Your task to perform on an android device: Clear all items from cart on ebay.com. Image 0: 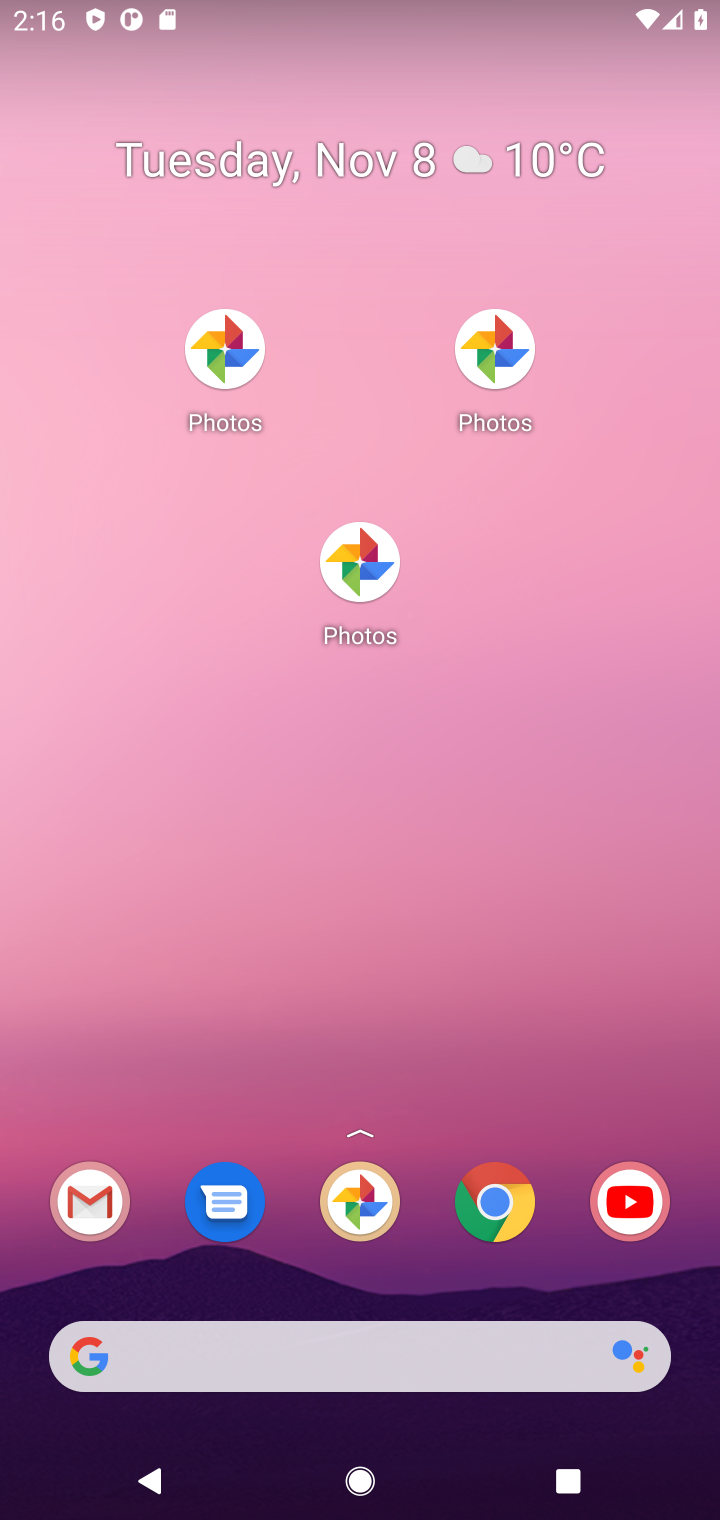
Step 0: drag from (339, 1330) to (360, 504)
Your task to perform on an android device: Clear all items from cart on ebay.com. Image 1: 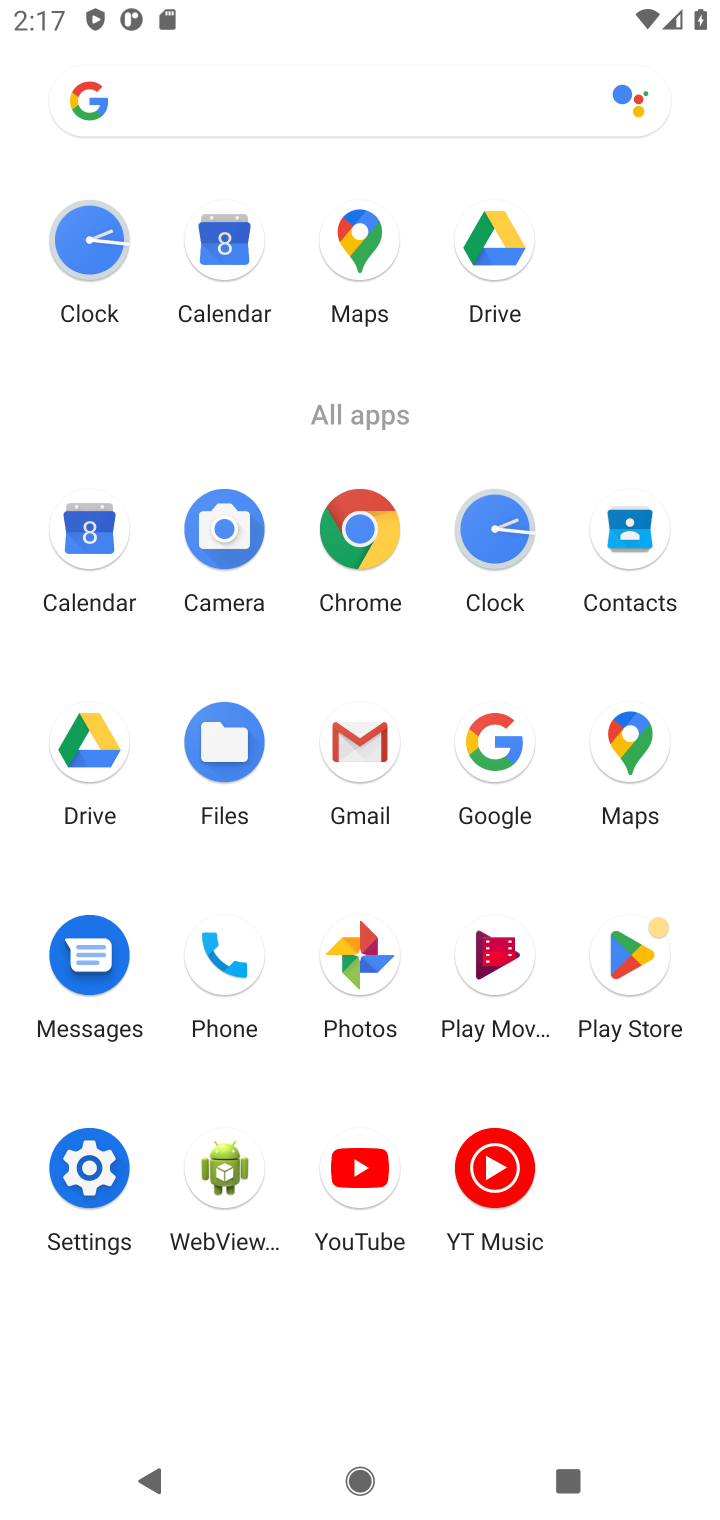
Step 1: click (513, 801)
Your task to perform on an android device: Clear all items from cart on ebay.com. Image 2: 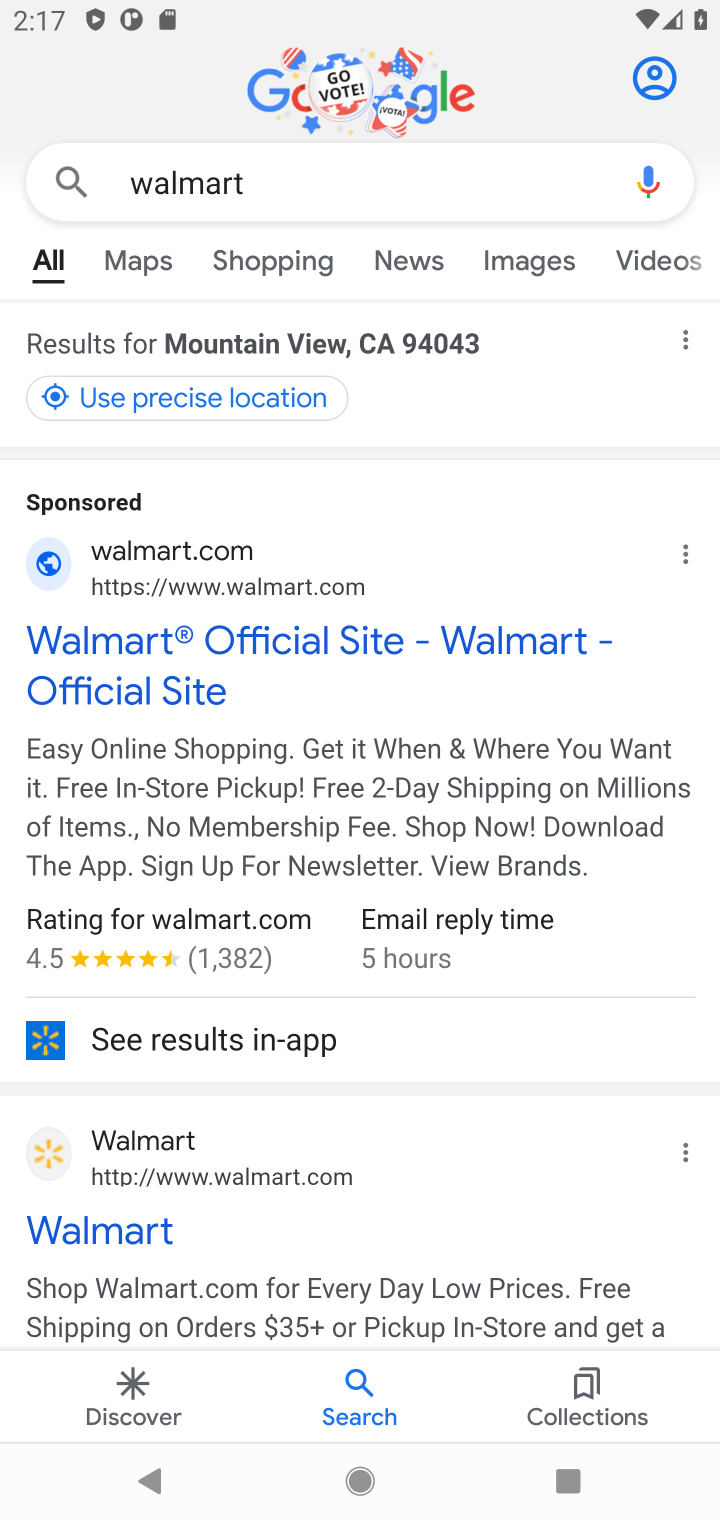
Step 2: click (442, 171)
Your task to perform on an android device: Clear all items from cart on ebay.com. Image 3: 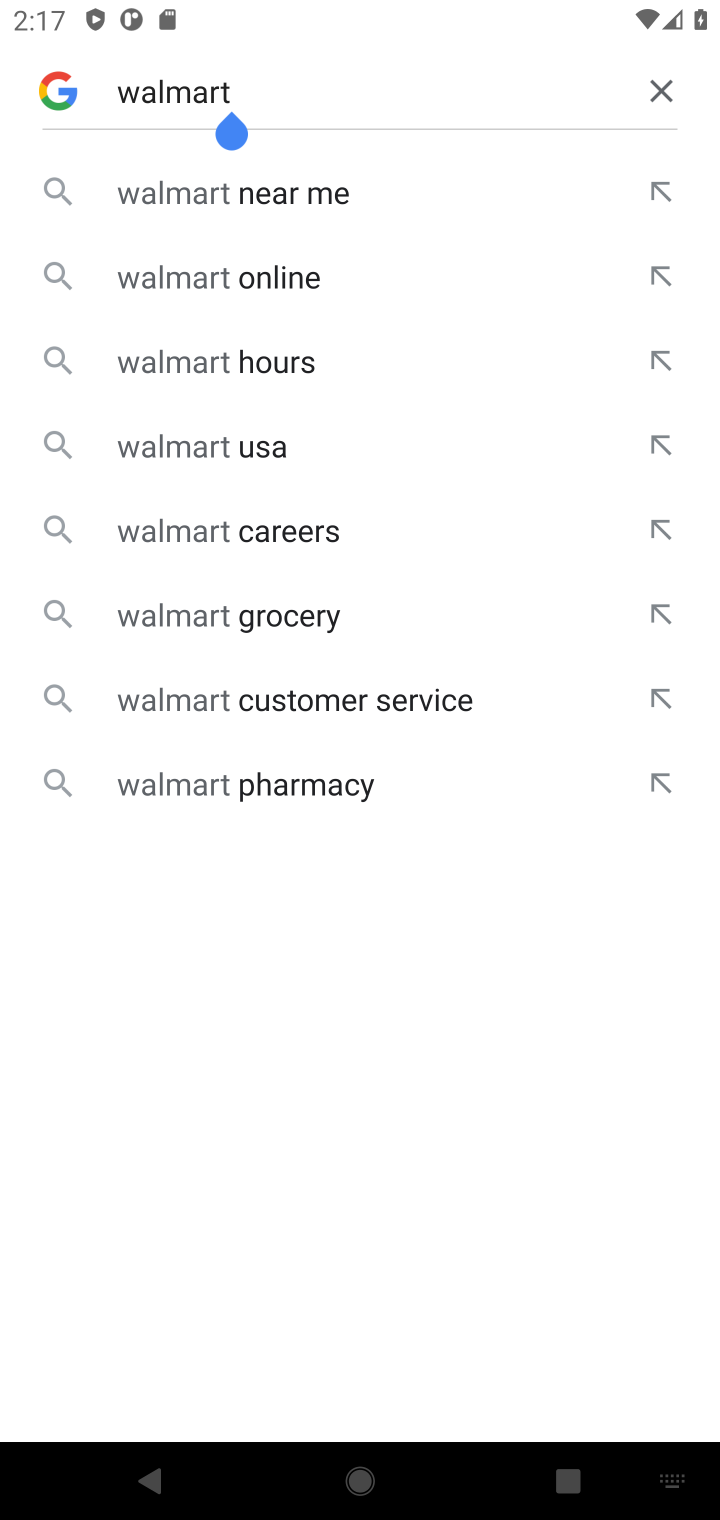
Step 3: click (662, 97)
Your task to perform on an android device: Clear all items from cart on ebay.com. Image 4: 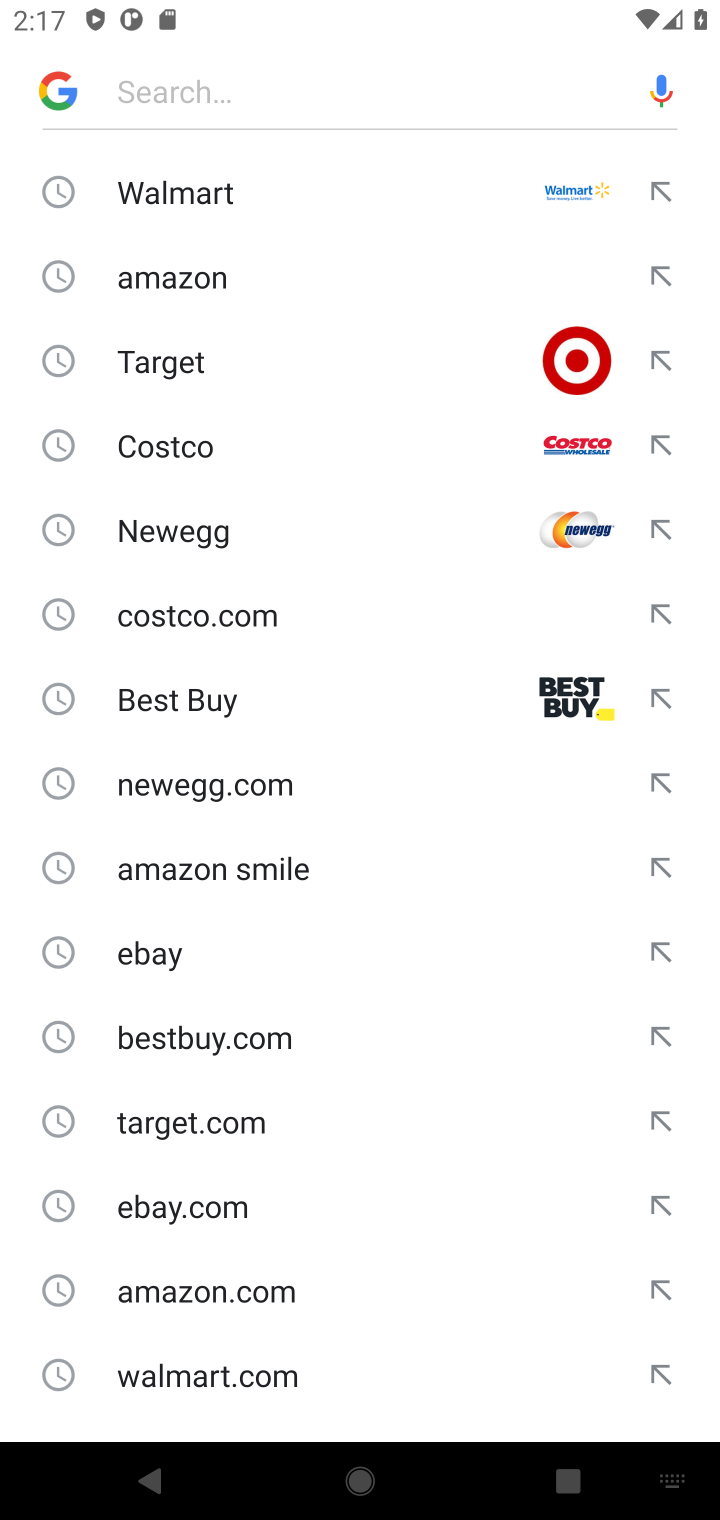
Step 4: type "ebay.com"
Your task to perform on an android device: Clear all items from cart on ebay.com. Image 5: 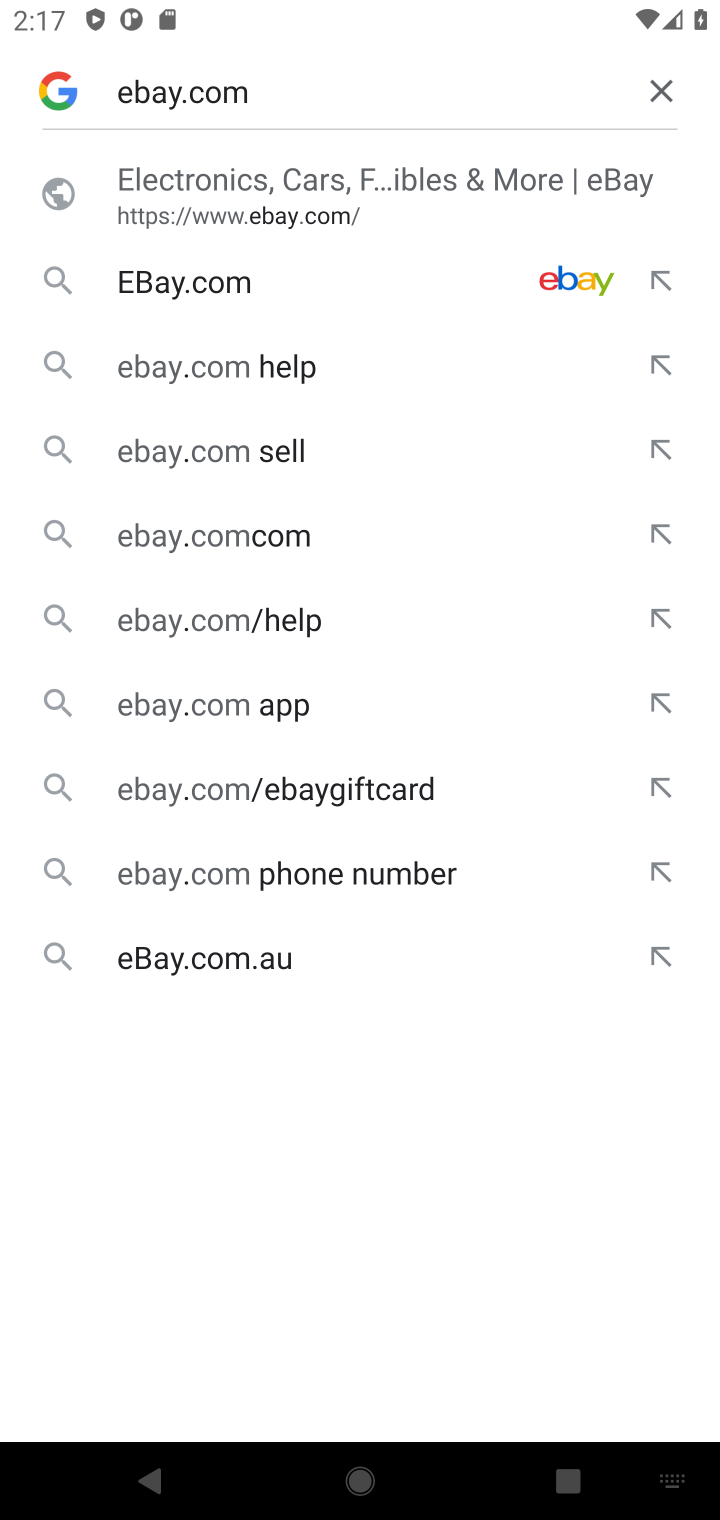
Step 5: click (265, 205)
Your task to perform on an android device: Clear all items from cart on ebay.com. Image 6: 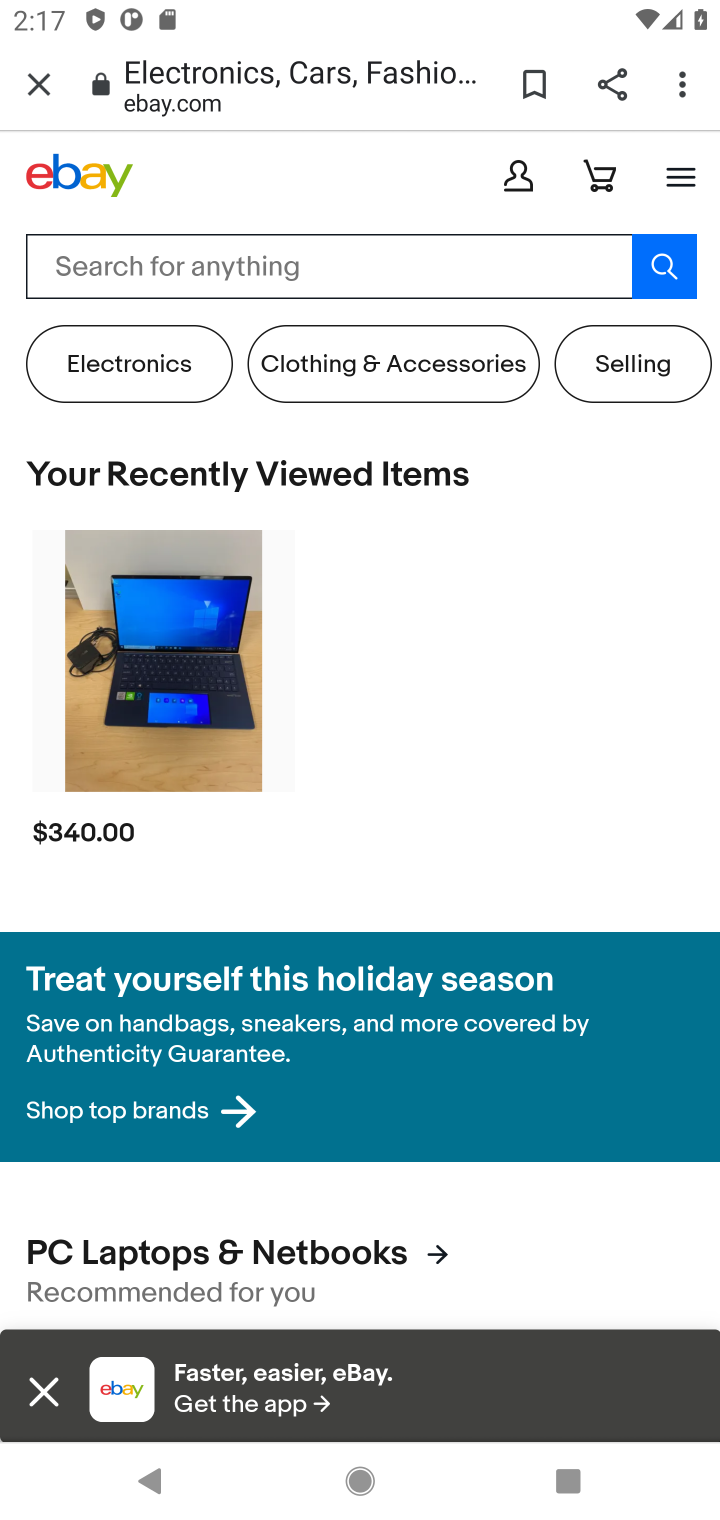
Step 6: click (600, 191)
Your task to perform on an android device: Clear all items from cart on ebay.com. Image 7: 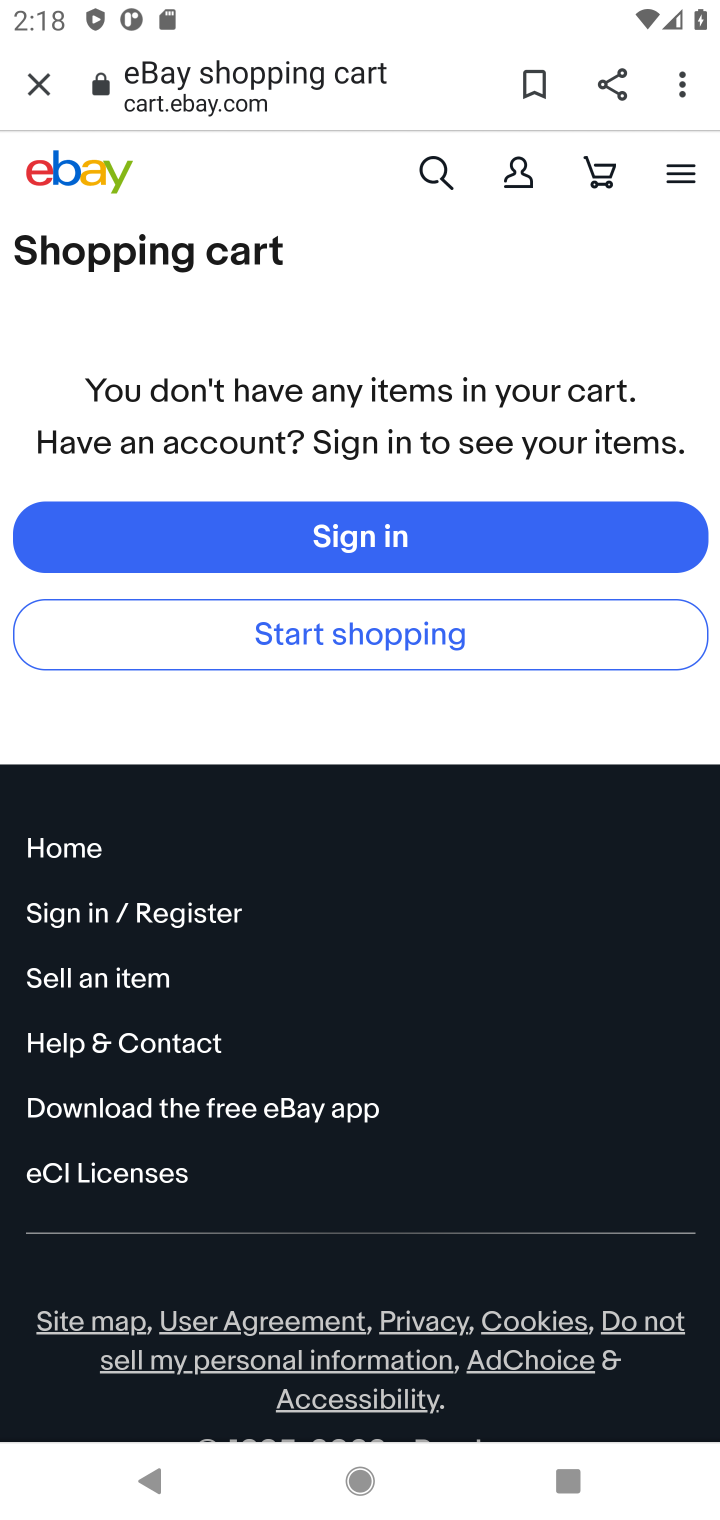
Step 7: task complete